Your task to perform on an android device: open app "Walmart Shopping & Grocery" Image 0: 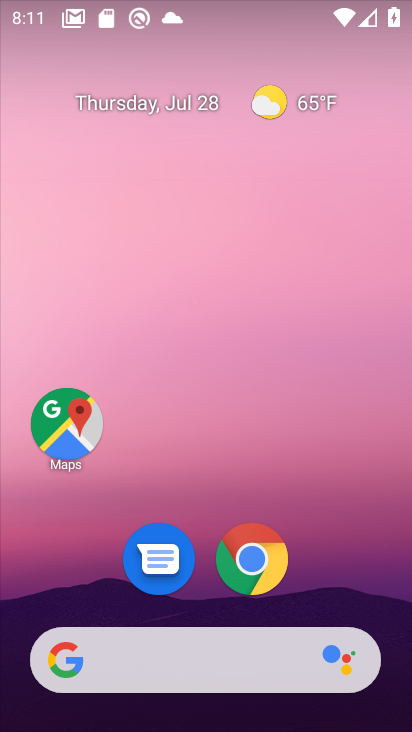
Step 0: drag from (189, 610) to (204, 4)
Your task to perform on an android device: open app "Walmart Shopping & Grocery" Image 1: 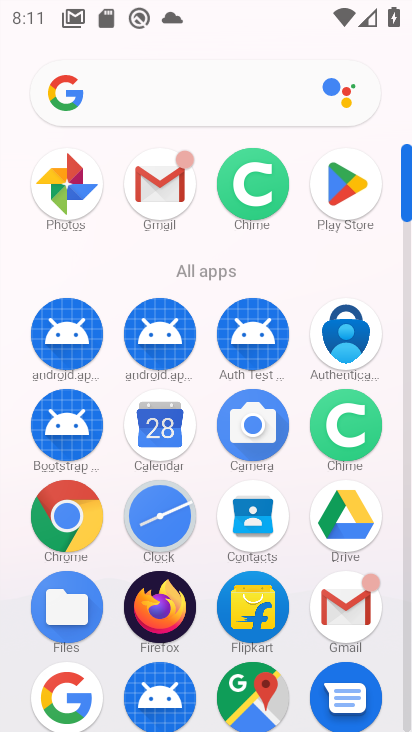
Step 1: click (339, 205)
Your task to perform on an android device: open app "Walmart Shopping & Grocery" Image 2: 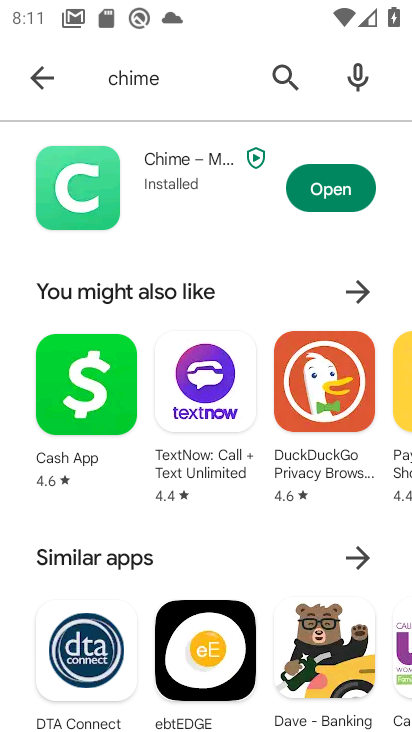
Step 2: click (130, 84)
Your task to perform on an android device: open app "Walmart Shopping & Grocery" Image 3: 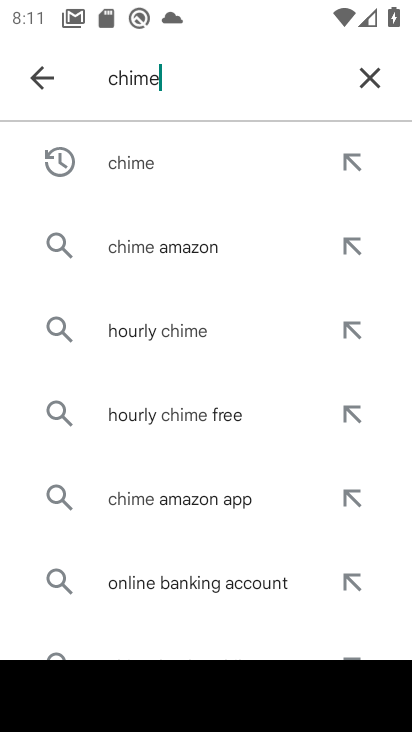
Step 3: click (376, 79)
Your task to perform on an android device: open app "Walmart Shopping & Grocery" Image 4: 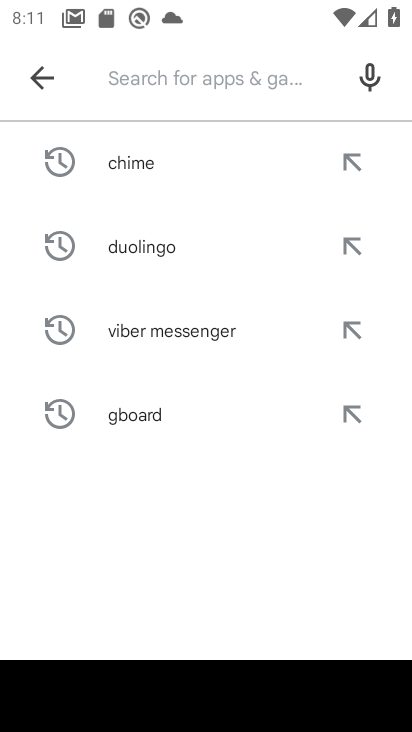
Step 4: type "walmart "
Your task to perform on an android device: open app "Walmart Shopping & Grocery" Image 5: 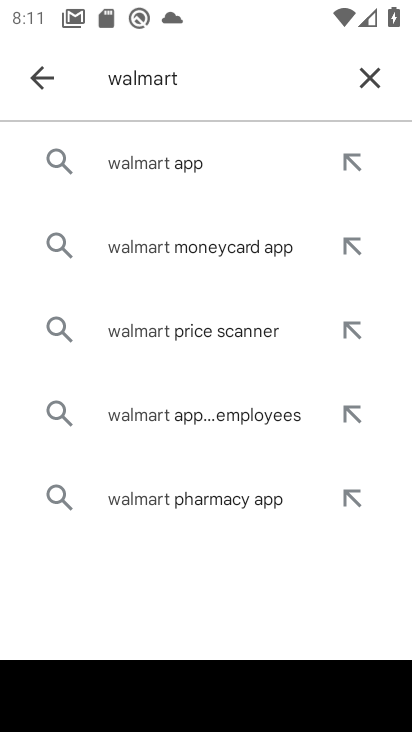
Step 5: click (159, 166)
Your task to perform on an android device: open app "Walmart Shopping & Grocery" Image 6: 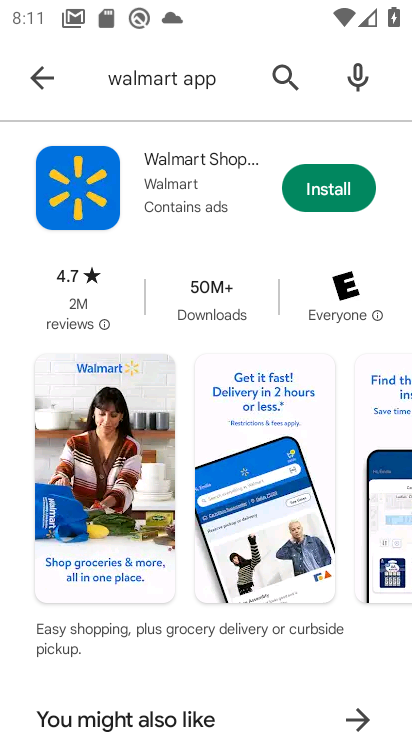
Step 6: task complete